Your task to perform on an android device: turn vacation reply on in the gmail app Image 0: 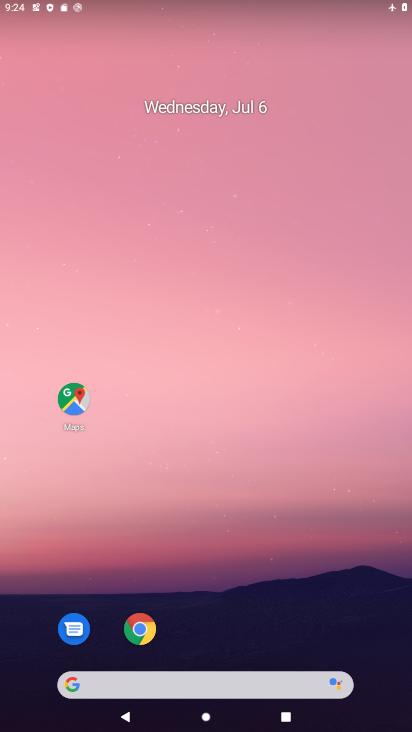
Step 0: drag from (201, 619) to (238, 135)
Your task to perform on an android device: turn vacation reply on in the gmail app Image 1: 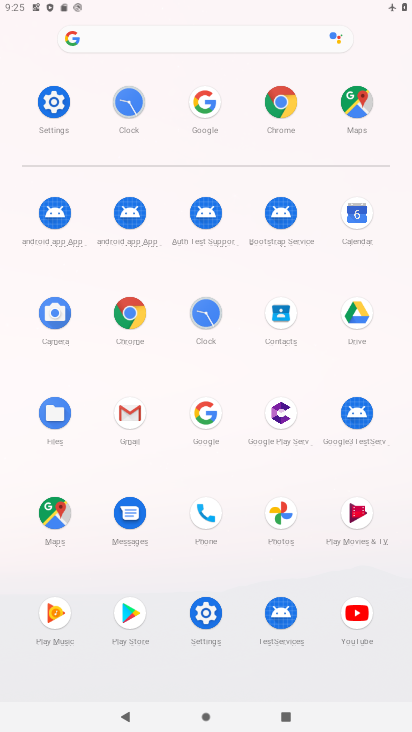
Step 1: click (135, 418)
Your task to perform on an android device: turn vacation reply on in the gmail app Image 2: 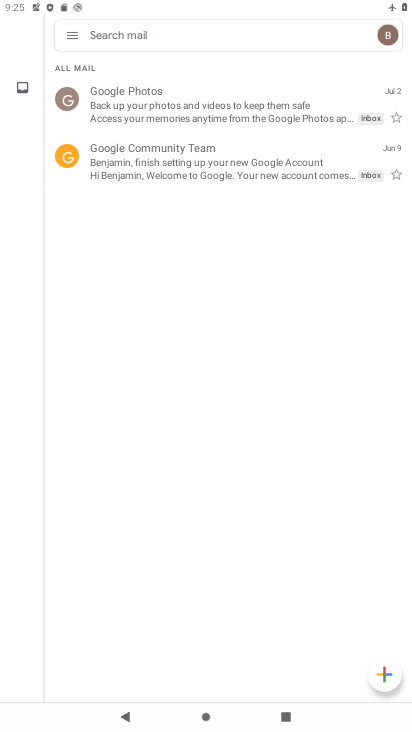
Step 2: click (66, 34)
Your task to perform on an android device: turn vacation reply on in the gmail app Image 3: 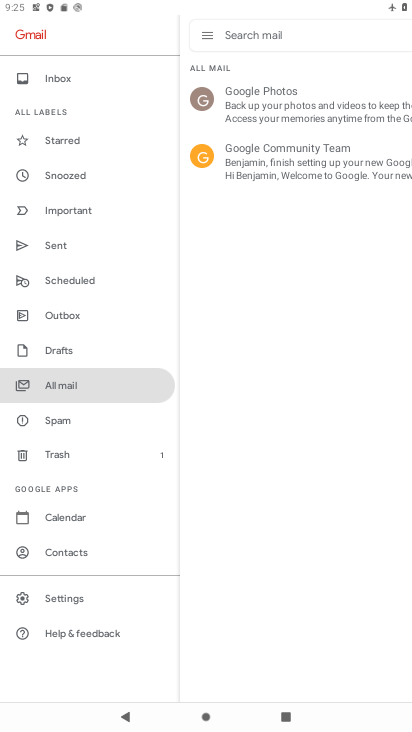
Step 3: click (68, 598)
Your task to perform on an android device: turn vacation reply on in the gmail app Image 4: 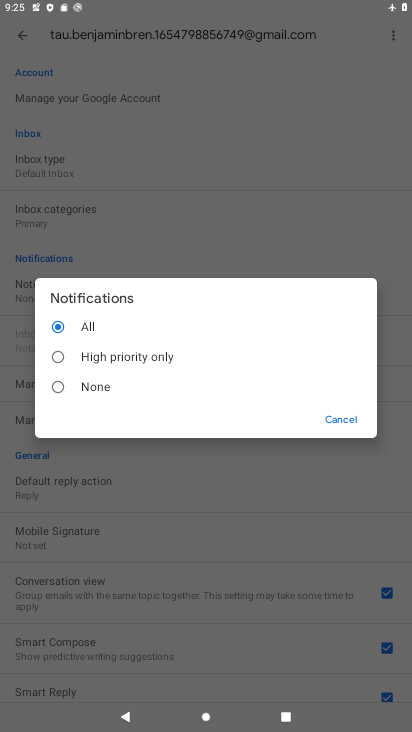
Step 4: click (330, 418)
Your task to perform on an android device: turn vacation reply on in the gmail app Image 5: 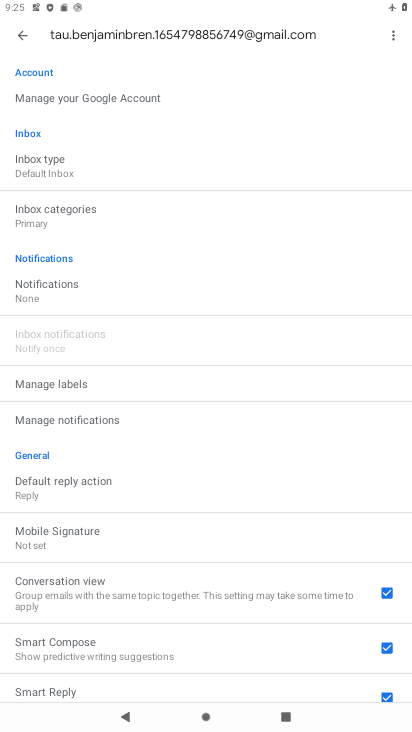
Step 5: drag from (181, 639) to (173, 240)
Your task to perform on an android device: turn vacation reply on in the gmail app Image 6: 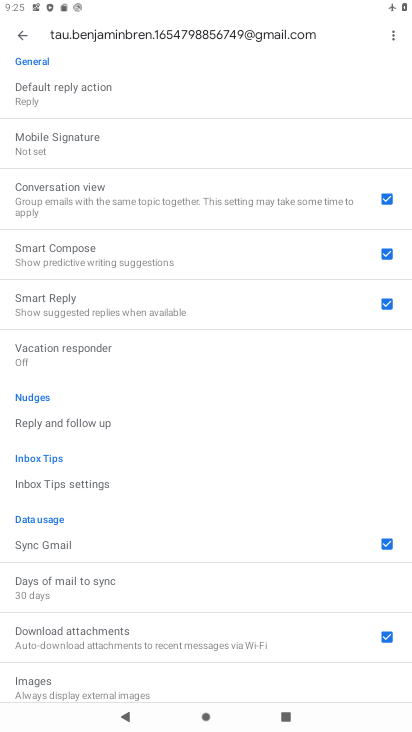
Step 6: click (93, 355)
Your task to perform on an android device: turn vacation reply on in the gmail app Image 7: 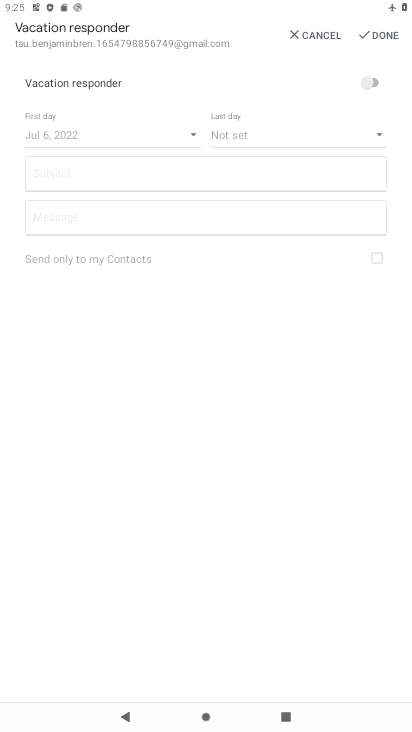
Step 7: click (372, 85)
Your task to perform on an android device: turn vacation reply on in the gmail app Image 8: 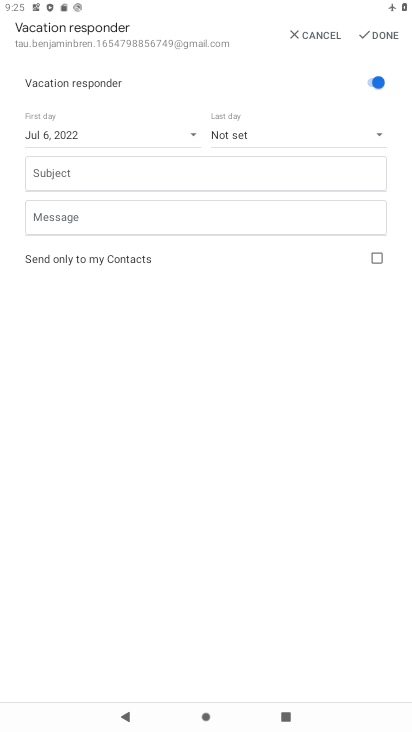
Step 8: click (377, 33)
Your task to perform on an android device: turn vacation reply on in the gmail app Image 9: 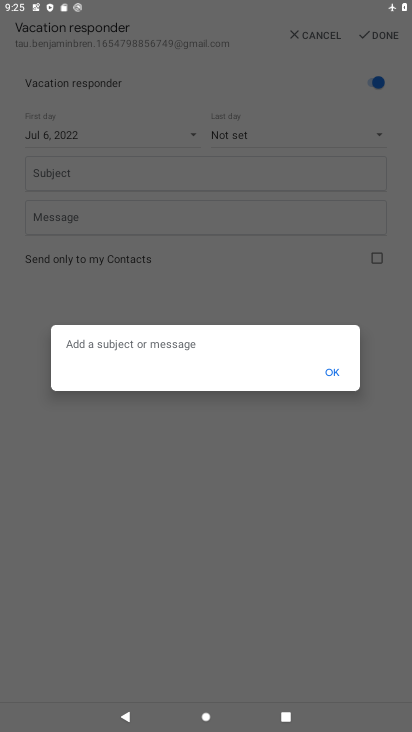
Step 9: click (338, 368)
Your task to perform on an android device: turn vacation reply on in the gmail app Image 10: 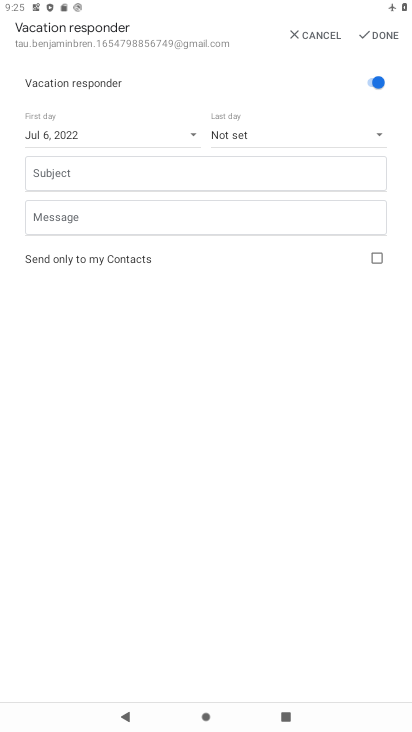
Step 10: task complete